Your task to perform on an android device: open sync settings in chrome Image 0: 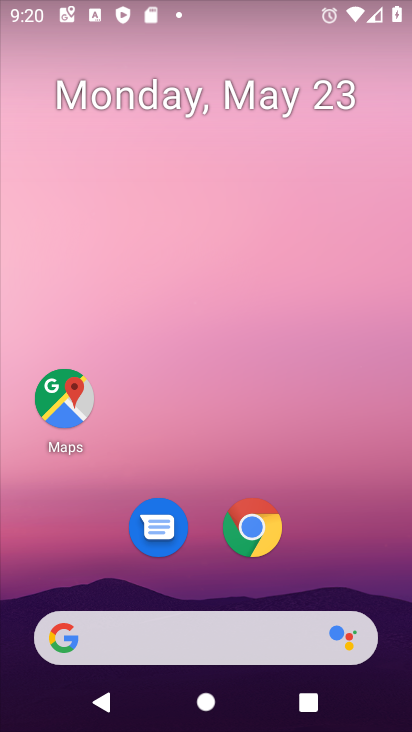
Step 0: drag from (361, 575) to (268, 23)
Your task to perform on an android device: open sync settings in chrome Image 1: 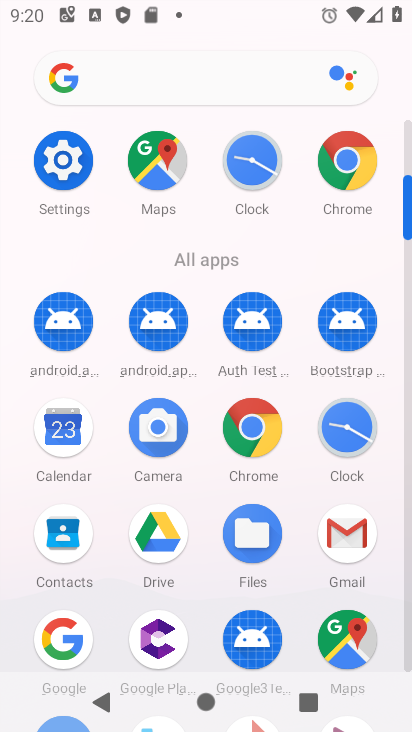
Step 1: drag from (0, 577) to (19, 218)
Your task to perform on an android device: open sync settings in chrome Image 2: 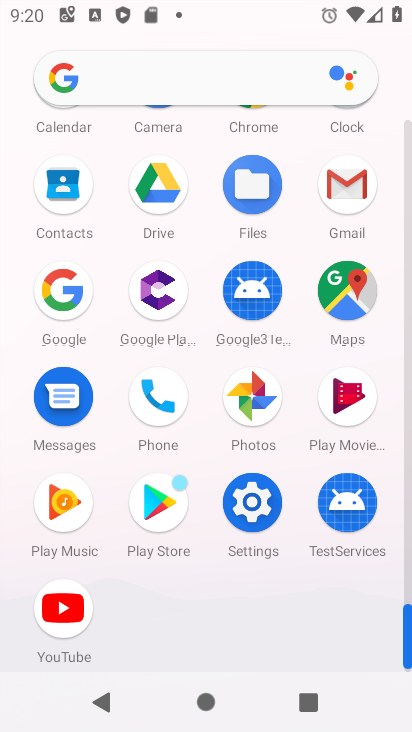
Step 2: drag from (4, 254) to (12, 581)
Your task to perform on an android device: open sync settings in chrome Image 3: 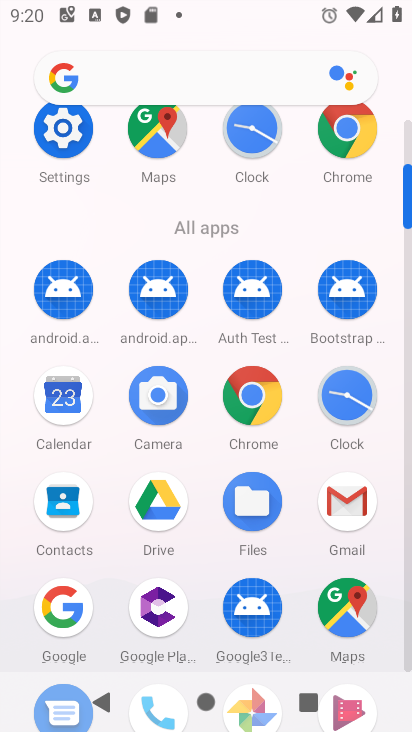
Step 3: click (248, 395)
Your task to perform on an android device: open sync settings in chrome Image 4: 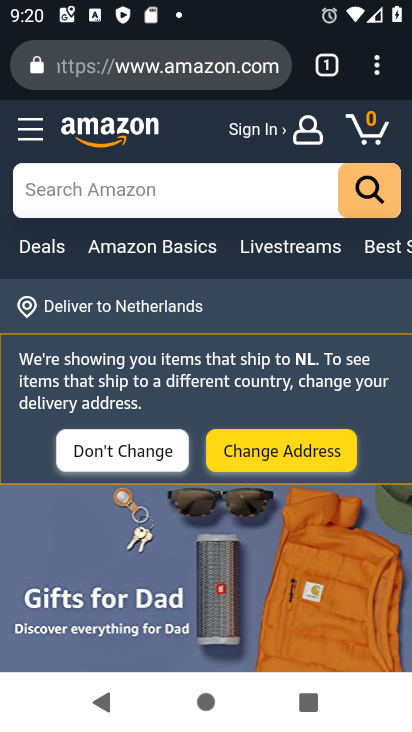
Step 4: drag from (373, 69) to (164, 576)
Your task to perform on an android device: open sync settings in chrome Image 5: 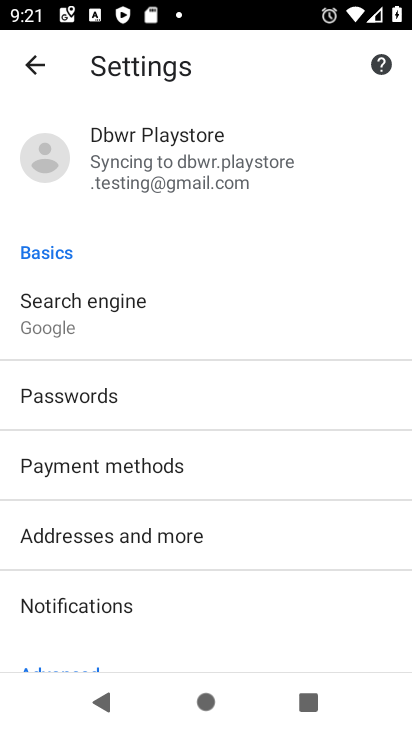
Step 5: drag from (260, 524) to (277, 124)
Your task to perform on an android device: open sync settings in chrome Image 6: 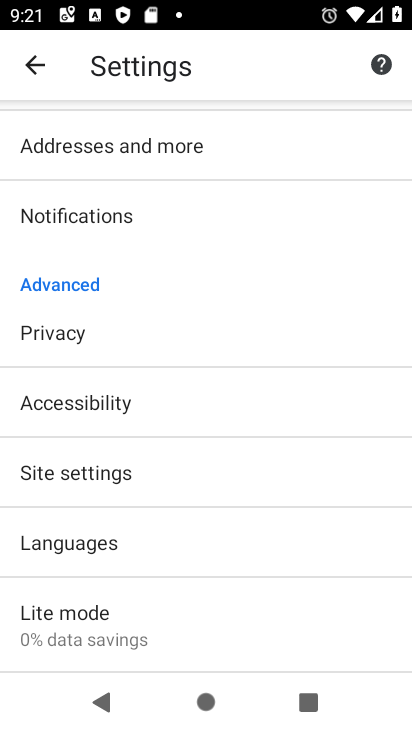
Step 6: drag from (213, 533) to (275, 132)
Your task to perform on an android device: open sync settings in chrome Image 7: 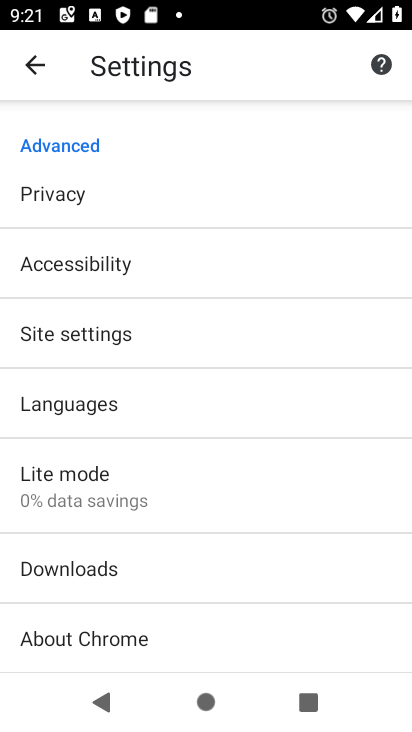
Step 7: drag from (218, 190) to (218, 609)
Your task to perform on an android device: open sync settings in chrome Image 8: 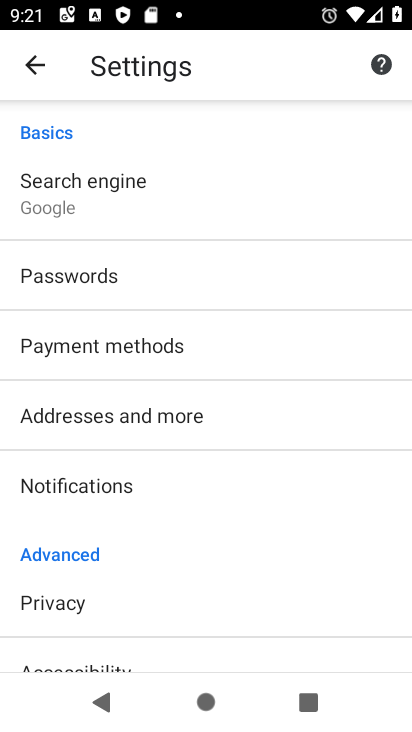
Step 8: drag from (267, 248) to (243, 620)
Your task to perform on an android device: open sync settings in chrome Image 9: 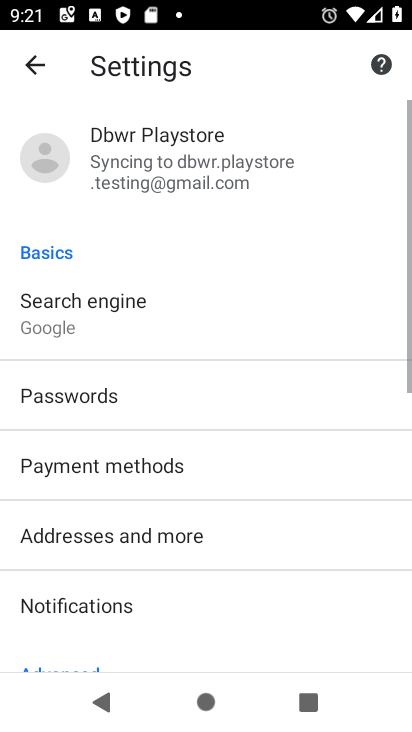
Step 9: click (153, 183)
Your task to perform on an android device: open sync settings in chrome Image 10: 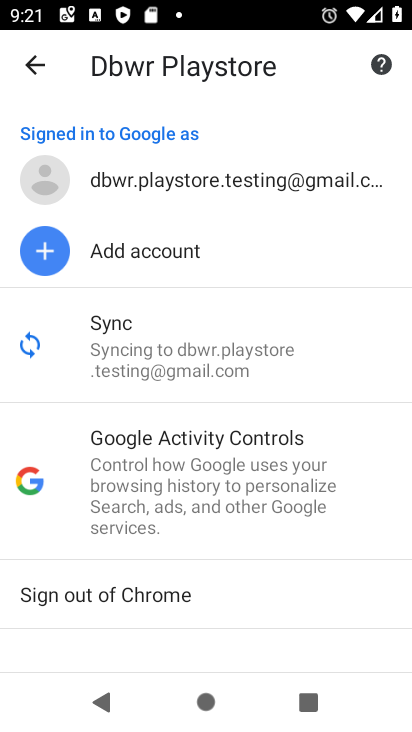
Step 10: click (160, 338)
Your task to perform on an android device: open sync settings in chrome Image 11: 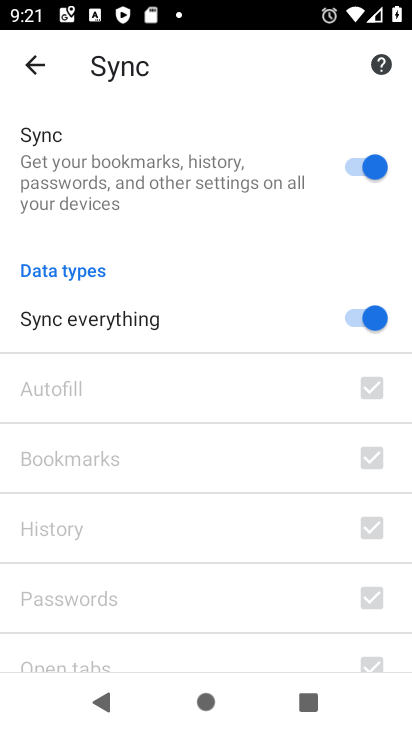
Step 11: task complete